Your task to perform on an android device: see sites visited before in the chrome app Image 0: 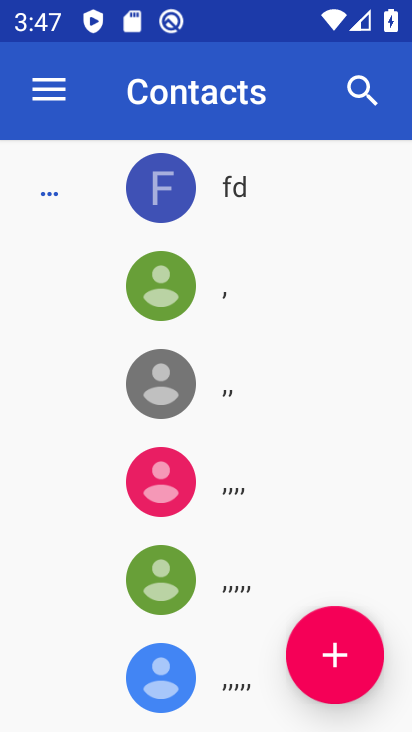
Step 0: press home button
Your task to perform on an android device: see sites visited before in the chrome app Image 1: 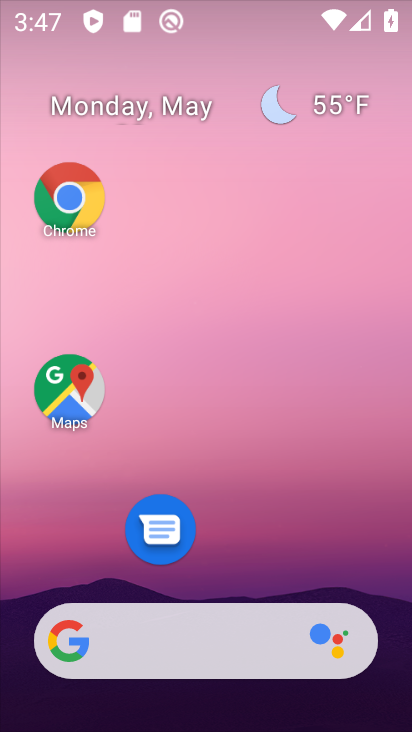
Step 1: drag from (157, 693) to (218, 184)
Your task to perform on an android device: see sites visited before in the chrome app Image 2: 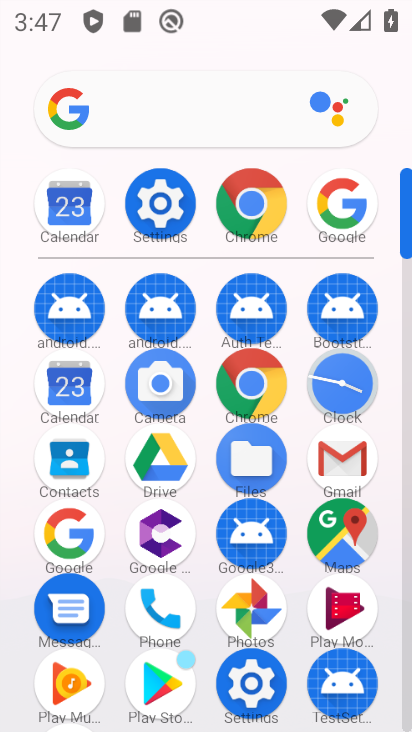
Step 2: click (237, 226)
Your task to perform on an android device: see sites visited before in the chrome app Image 3: 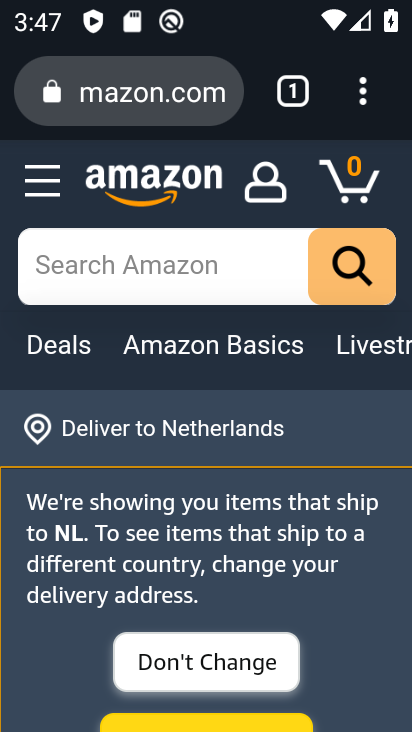
Step 3: click (358, 98)
Your task to perform on an android device: see sites visited before in the chrome app Image 4: 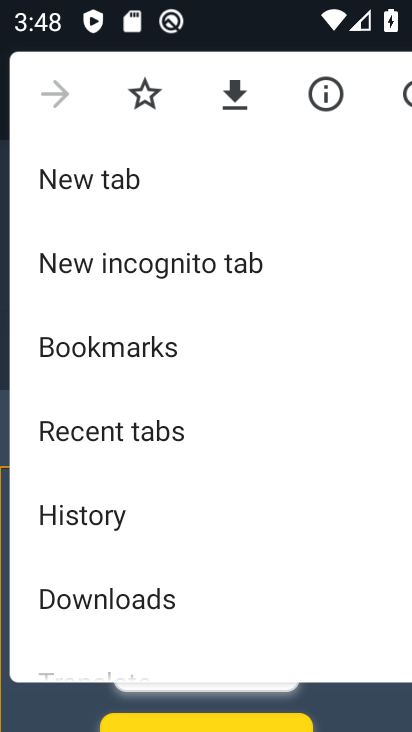
Step 4: click (85, 514)
Your task to perform on an android device: see sites visited before in the chrome app Image 5: 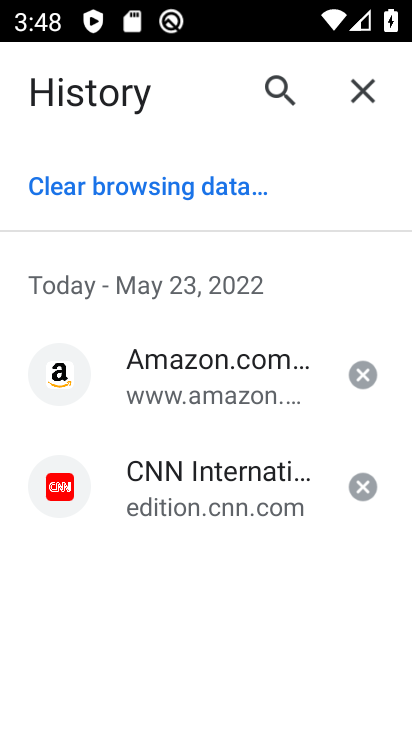
Step 5: task complete